Your task to perform on an android device: turn off sleep mode Image 0: 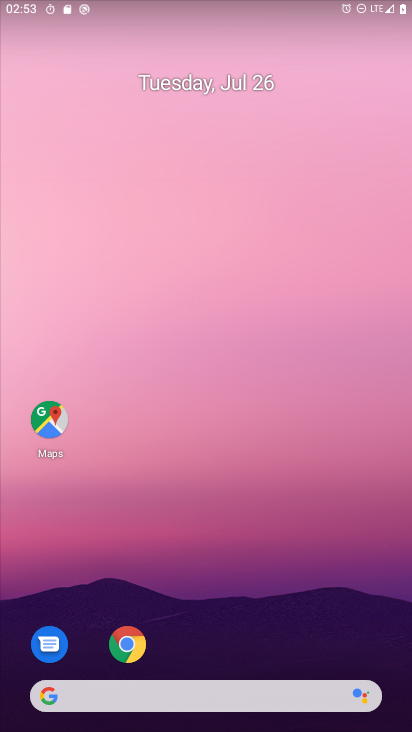
Step 0: drag from (220, 544) to (185, 6)
Your task to perform on an android device: turn off sleep mode Image 1: 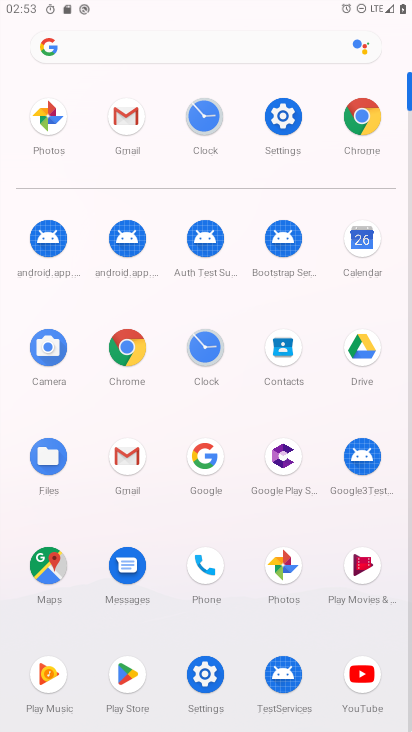
Step 1: click (277, 119)
Your task to perform on an android device: turn off sleep mode Image 2: 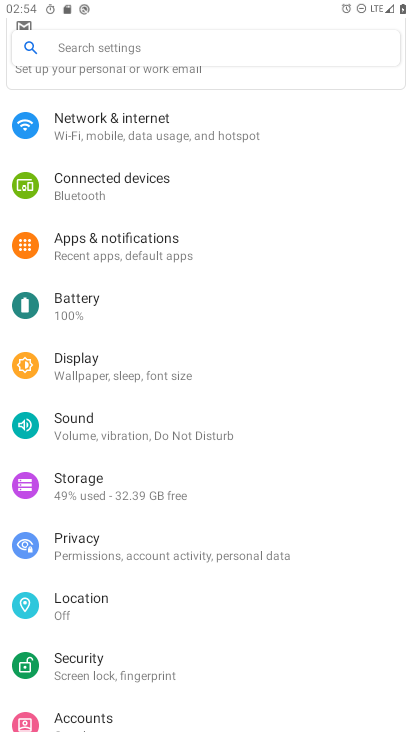
Step 2: click (102, 367)
Your task to perform on an android device: turn off sleep mode Image 3: 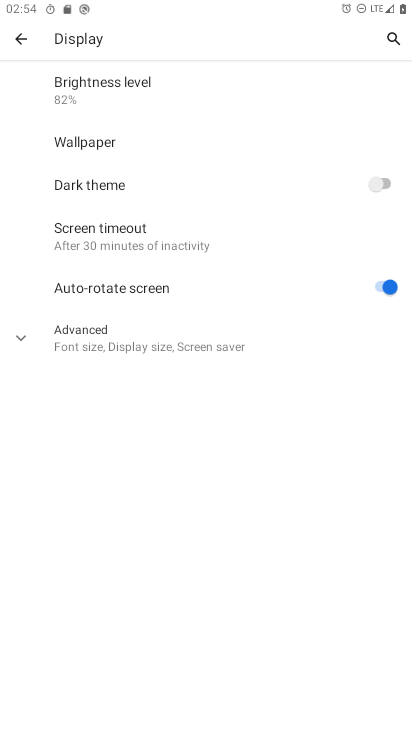
Step 3: click (22, 342)
Your task to perform on an android device: turn off sleep mode Image 4: 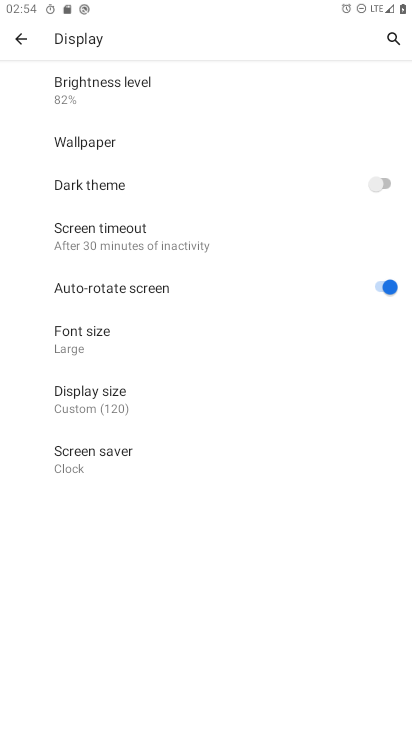
Step 4: task complete